Your task to perform on an android device: Go to battery settings Image 0: 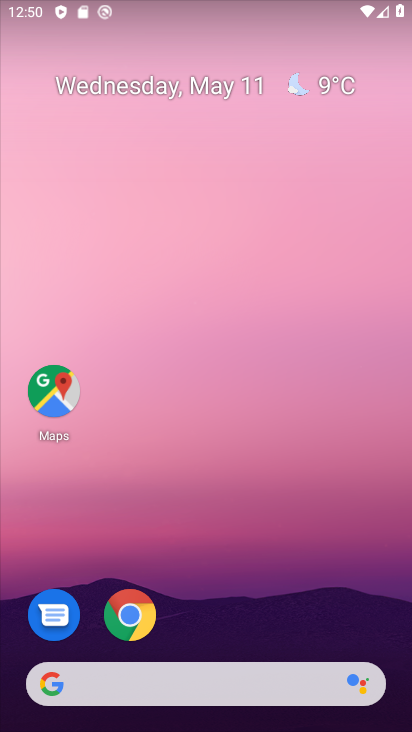
Step 0: drag from (261, 584) to (287, 223)
Your task to perform on an android device: Go to battery settings Image 1: 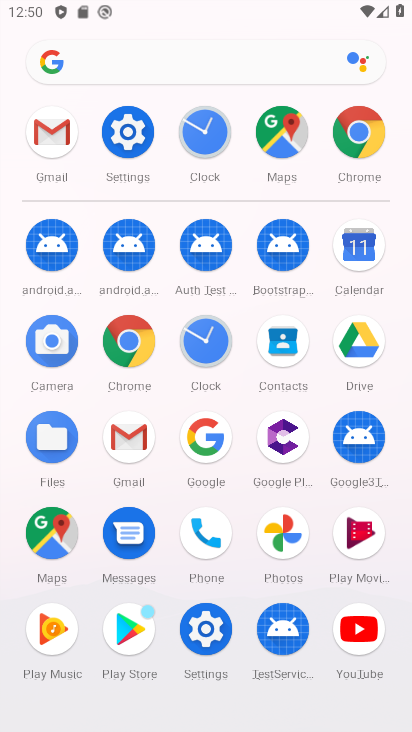
Step 1: click (139, 159)
Your task to perform on an android device: Go to battery settings Image 2: 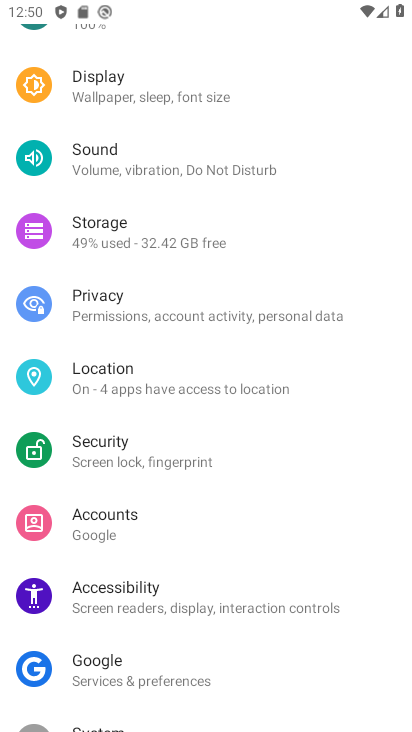
Step 2: drag from (154, 323) to (137, 495)
Your task to perform on an android device: Go to battery settings Image 3: 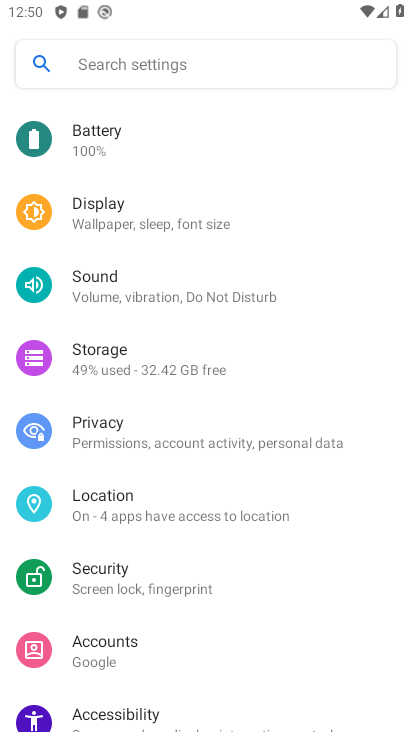
Step 3: click (147, 136)
Your task to perform on an android device: Go to battery settings Image 4: 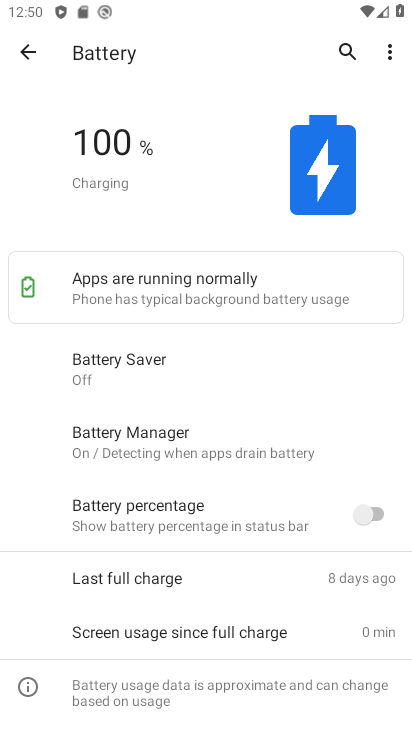
Step 4: task complete